Your task to perform on an android device: check google app version Image 0: 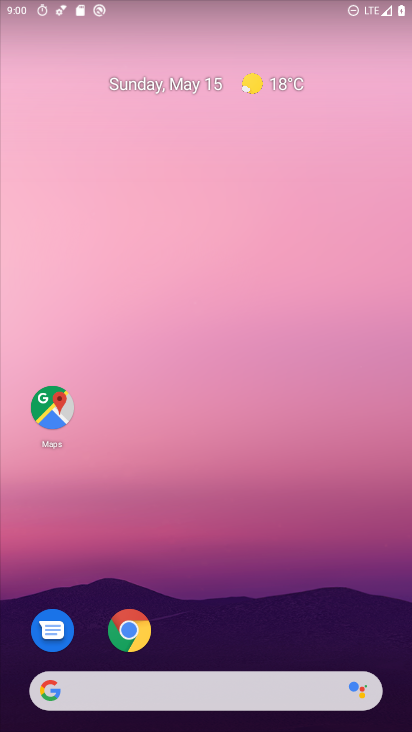
Step 0: drag from (176, 639) to (211, 159)
Your task to perform on an android device: check google app version Image 1: 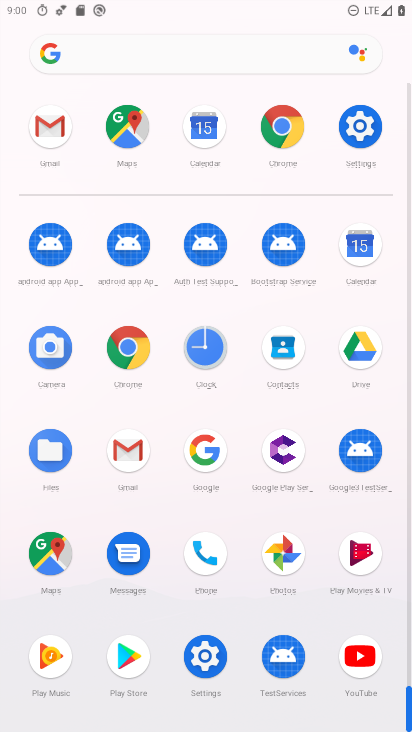
Step 1: drag from (240, 644) to (246, 304)
Your task to perform on an android device: check google app version Image 2: 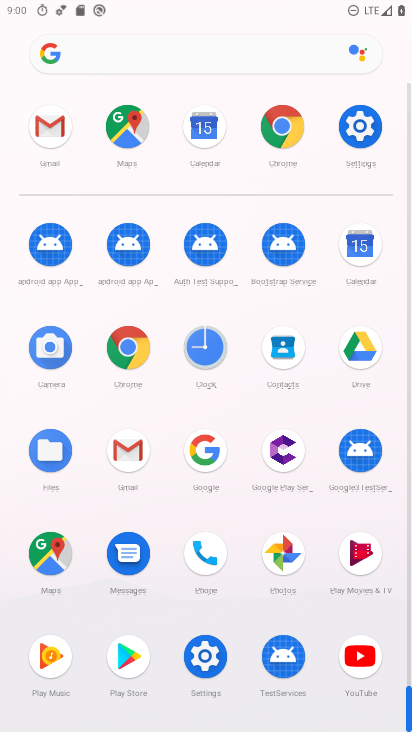
Step 2: click (193, 457)
Your task to perform on an android device: check google app version Image 3: 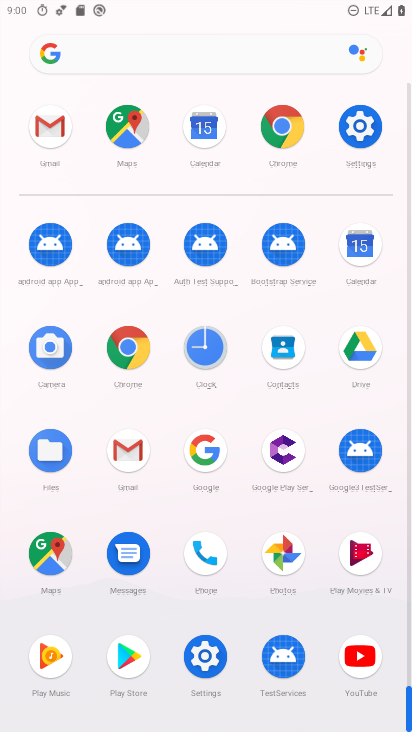
Step 3: click (193, 457)
Your task to perform on an android device: check google app version Image 4: 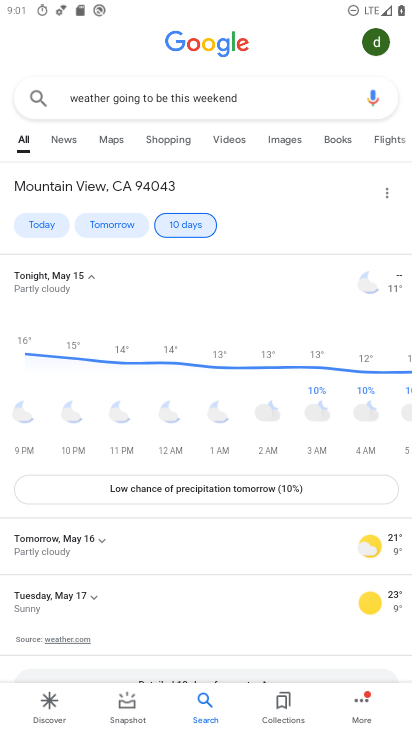
Step 4: click (357, 702)
Your task to perform on an android device: check google app version Image 5: 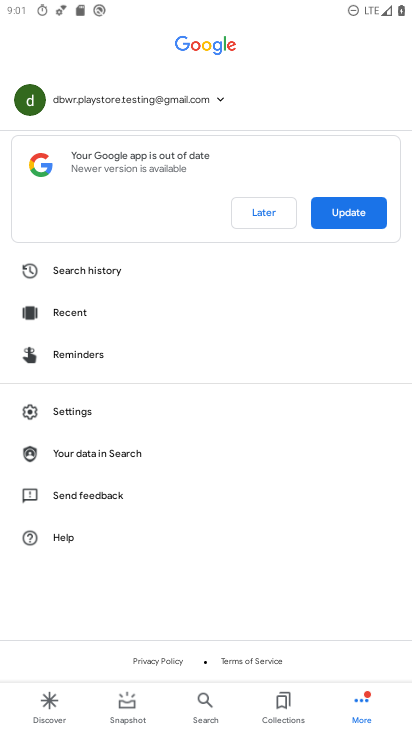
Step 5: click (364, 694)
Your task to perform on an android device: check google app version Image 6: 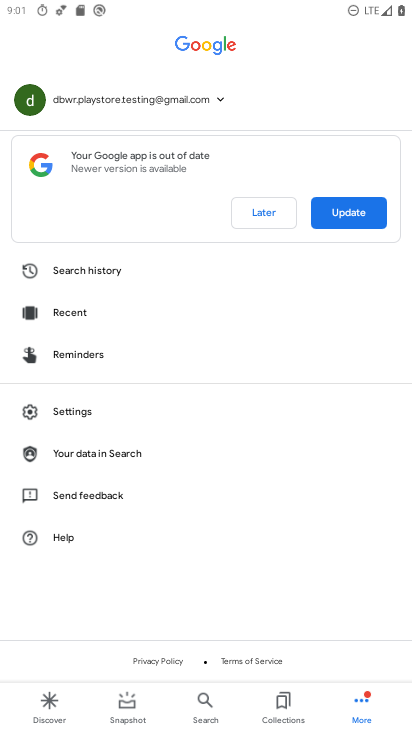
Step 6: click (96, 412)
Your task to perform on an android device: check google app version Image 7: 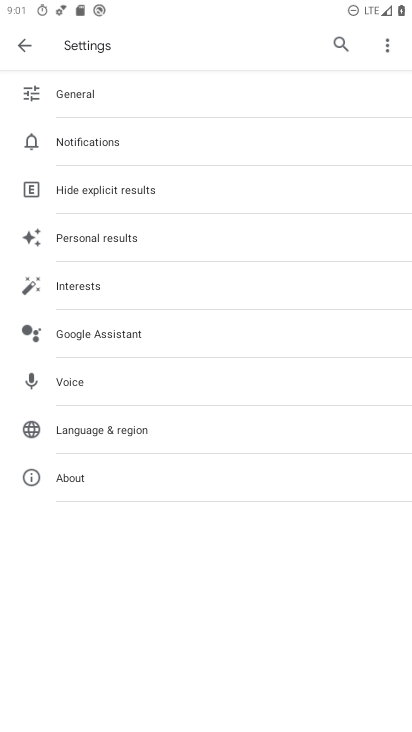
Step 7: click (104, 480)
Your task to perform on an android device: check google app version Image 8: 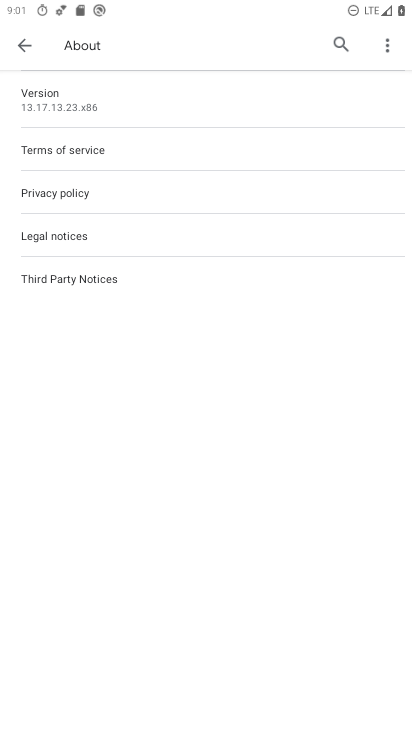
Step 8: click (92, 110)
Your task to perform on an android device: check google app version Image 9: 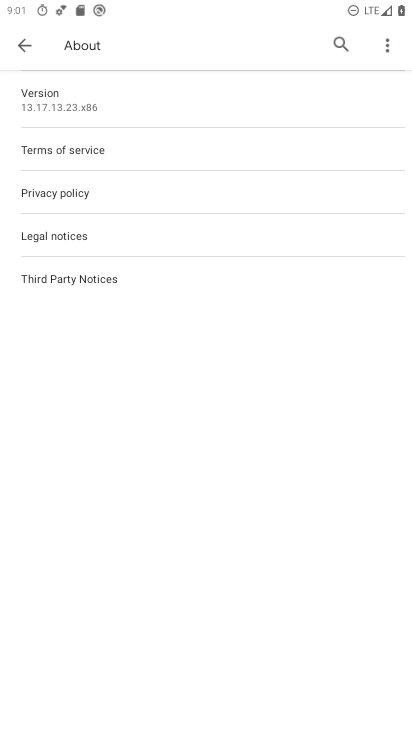
Step 9: task complete